Your task to perform on an android device: toggle airplane mode Image 0: 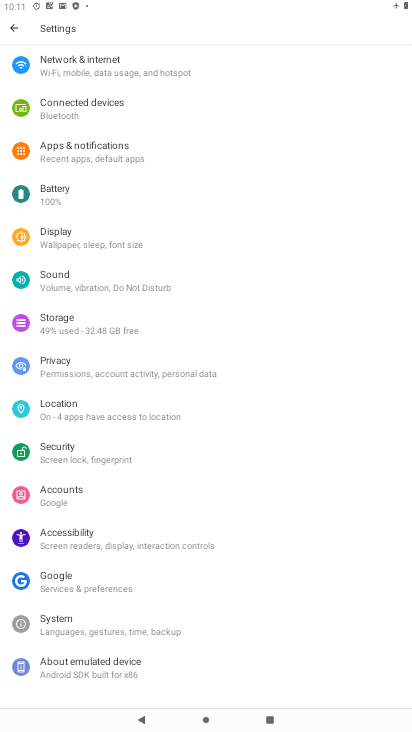
Step 0: click (106, 70)
Your task to perform on an android device: toggle airplane mode Image 1: 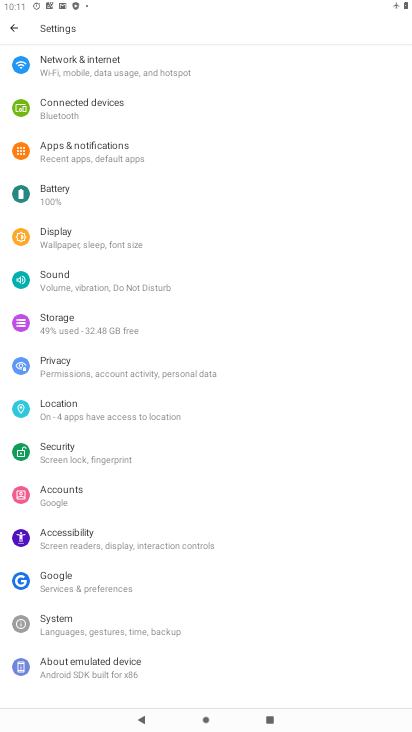
Step 1: click (106, 70)
Your task to perform on an android device: toggle airplane mode Image 2: 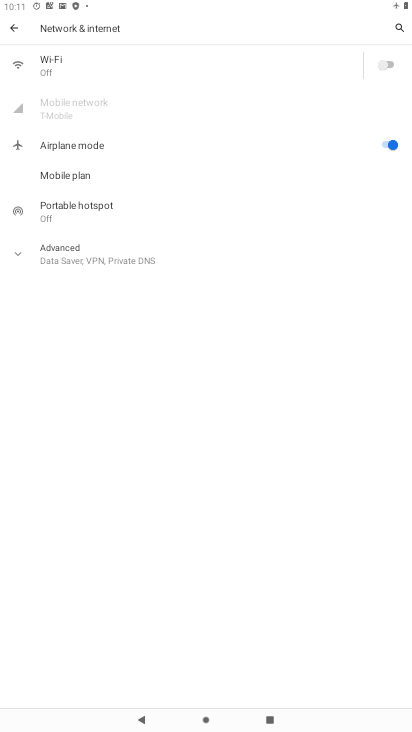
Step 2: click (382, 139)
Your task to perform on an android device: toggle airplane mode Image 3: 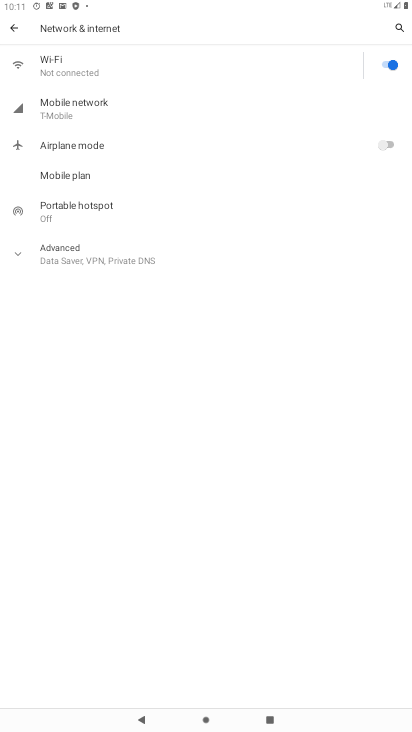
Step 3: task complete